Your task to perform on an android device: Open Yahoo.com Image 0: 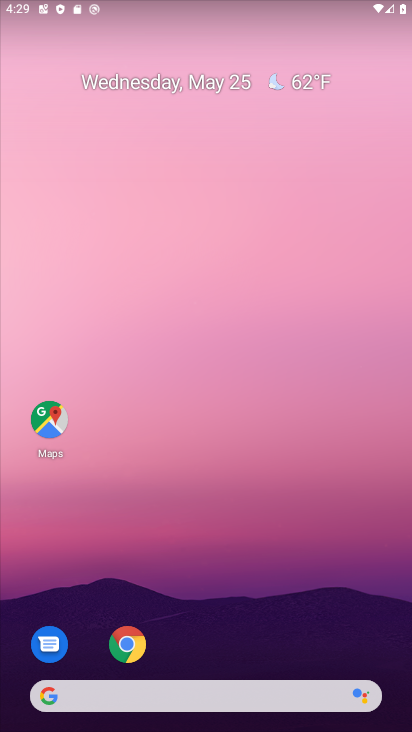
Step 0: click (117, 645)
Your task to perform on an android device: Open Yahoo.com Image 1: 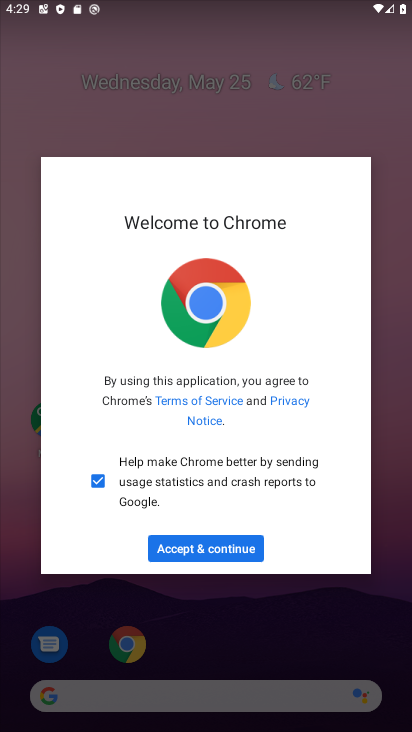
Step 1: click (200, 552)
Your task to perform on an android device: Open Yahoo.com Image 2: 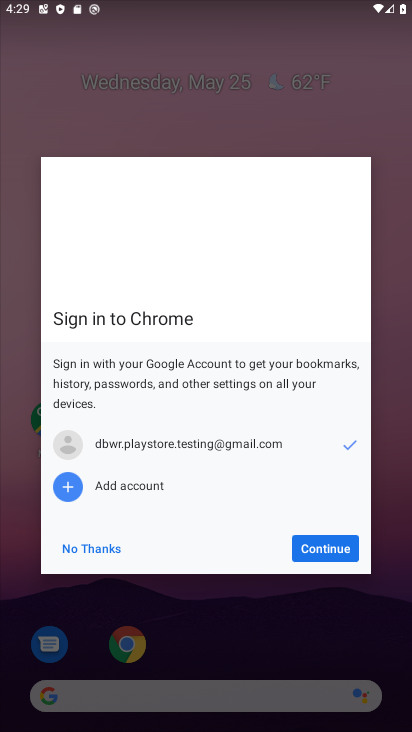
Step 2: click (312, 551)
Your task to perform on an android device: Open Yahoo.com Image 3: 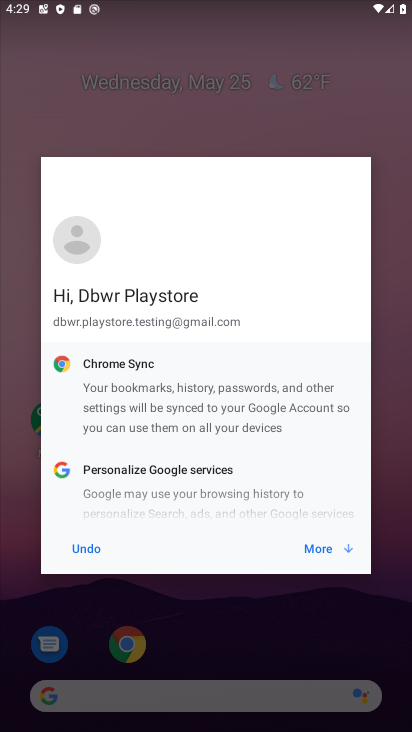
Step 3: click (323, 553)
Your task to perform on an android device: Open Yahoo.com Image 4: 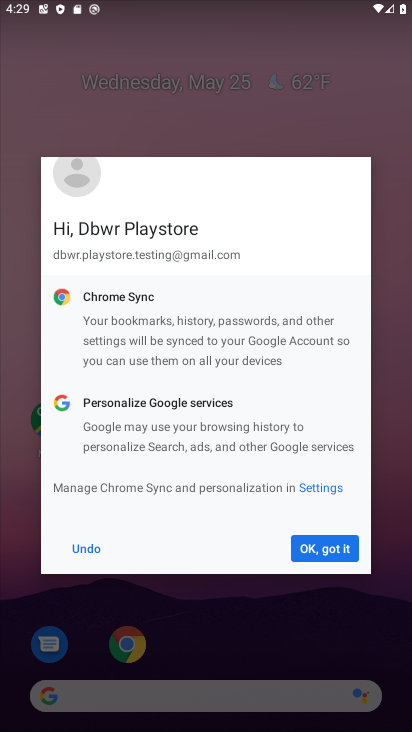
Step 4: click (325, 553)
Your task to perform on an android device: Open Yahoo.com Image 5: 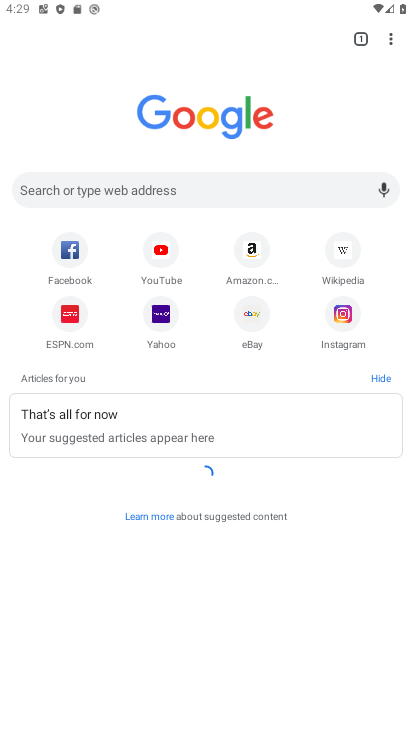
Step 5: click (162, 331)
Your task to perform on an android device: Open Yahoo.com Image 6: 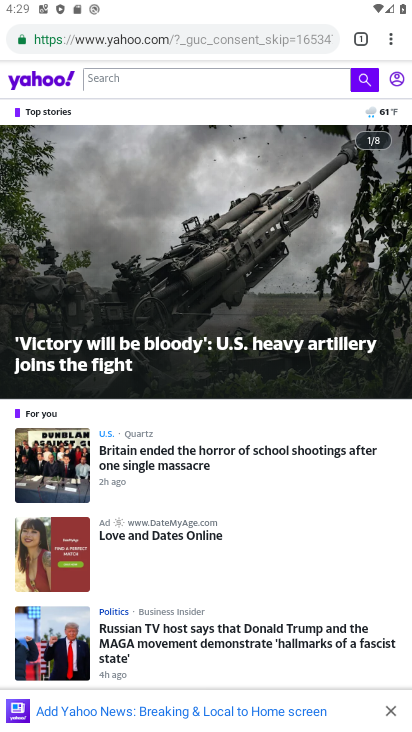
Step 6: task complete